Your task to perform on an android device: read, delete, or share a saved page in the chrome app Image 0: 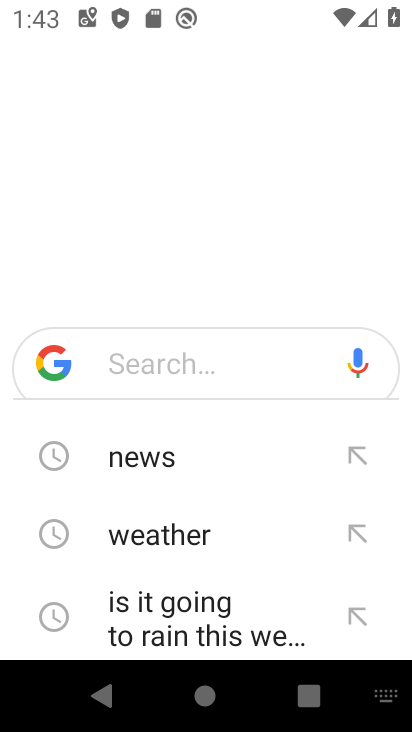
Step 0: press home button
Your task to perform on an android device: read, delete, or share a saved page in the chrome app Image 1: 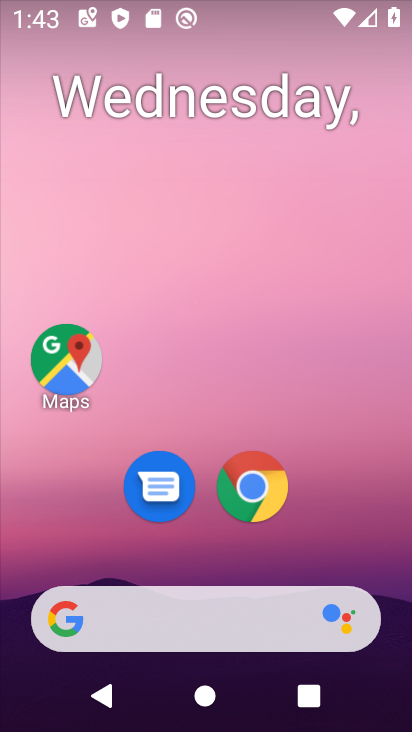
Step 1: click (240, 481)
Your task to perform on an android device: read, delete, or share a saved page in the chrome app Image 2: 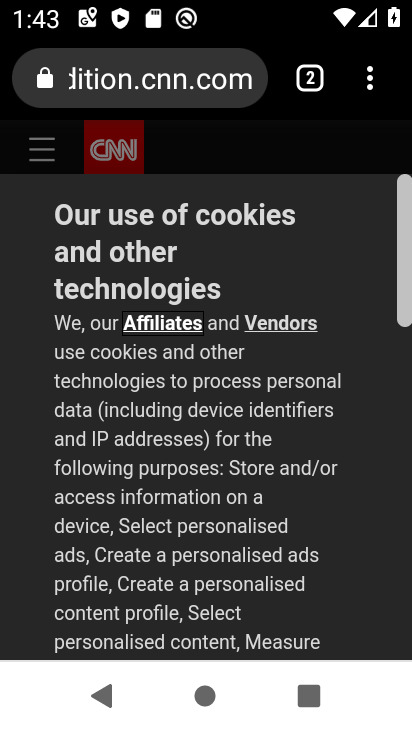
Step 2: click (366, 75)
Your task to perform on an android device: read, delete, or share a saved page in the chrome app Image 3: 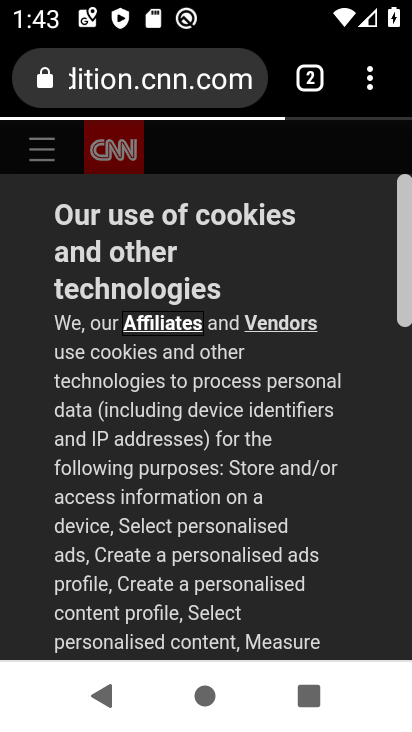
Step 3: task complete